Your task to perform on an android device: Open Youtube and go to "Your channel" Image 0: 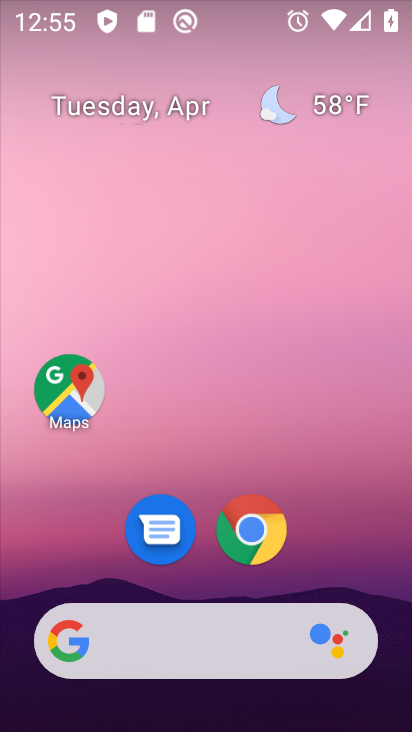
Step 0: drag from (392, 608) to (304, 40)
Your task to perform on an android device: Open Youtube and go to "Your channel" Image 1: 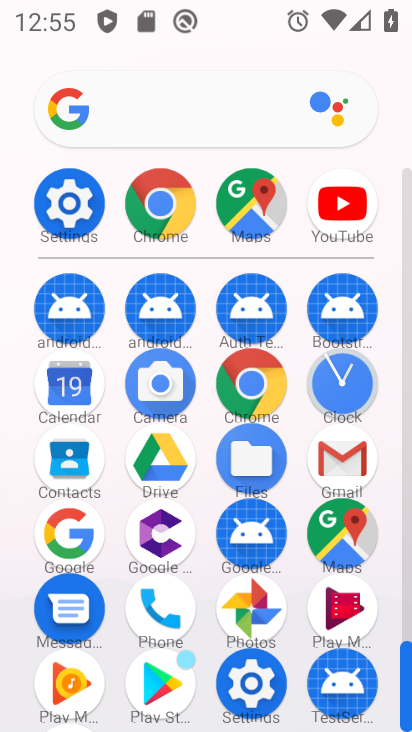
Step 1: click (337, 209)
Your task to perform on an android device: Open Youtube and go to "Your channel" Image 2: 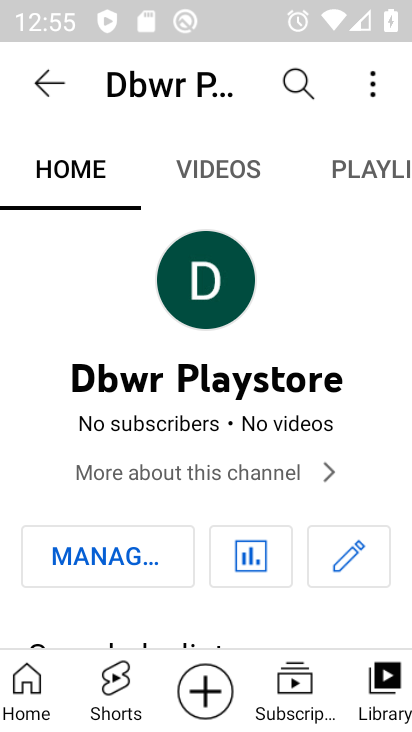
Step 2: task complete